Your task to perform on an android device: Open Google Maps and go to "Timeline" Image 0: 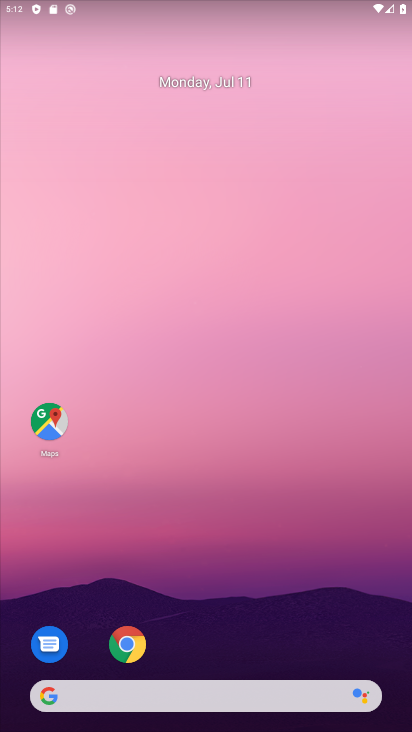
Step 0: drag from (339, 678) to (300, 27)
Your task to perform on an android device: Open Google Maps and go to "Timeline" Image 1: 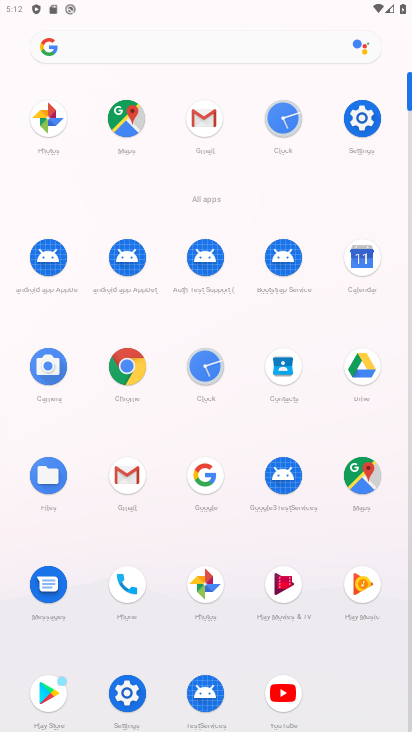
Step 1: click (349, 470)
Your task to perform on an android device: Open Google Maps and go to "Timeline" Image 2: 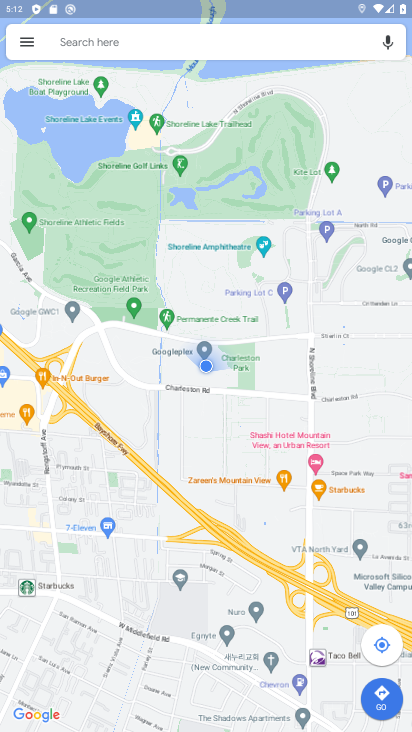
Step 2: click (17, 41)
Your task to perform on an android device: Open Google Maps and go to "Timeline" Image 3: 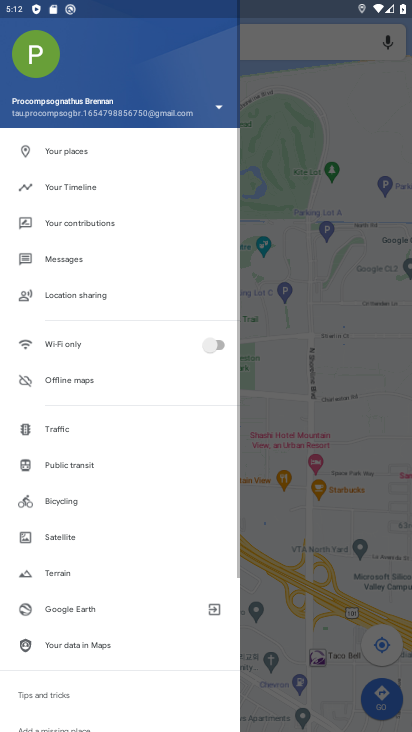
Step 3: click (105, 193)
Your task to perform on an android device: Open Google Maps and go to "Timeline" Image 4: 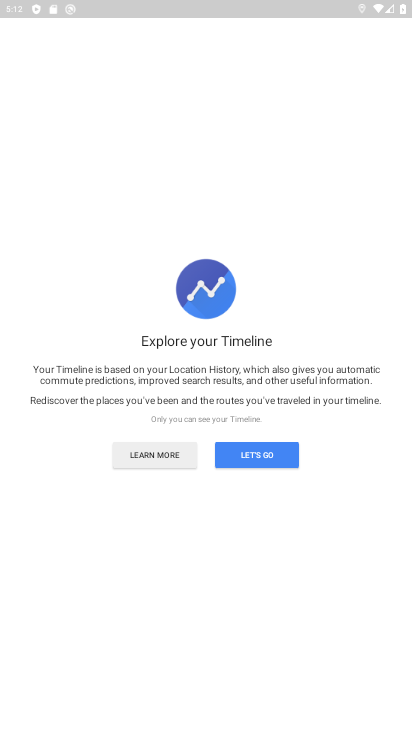
Step 4: click (262, 455)
Your task to perform on an android device: Open Google Maps and go to "Timeline" Image 5: 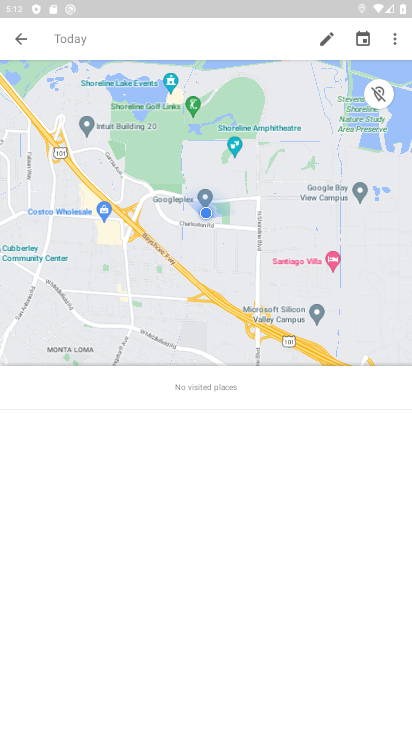
Step 5: task complete